Your task to perform on an android device: turn on priority inbox in the gmail app Image 0: 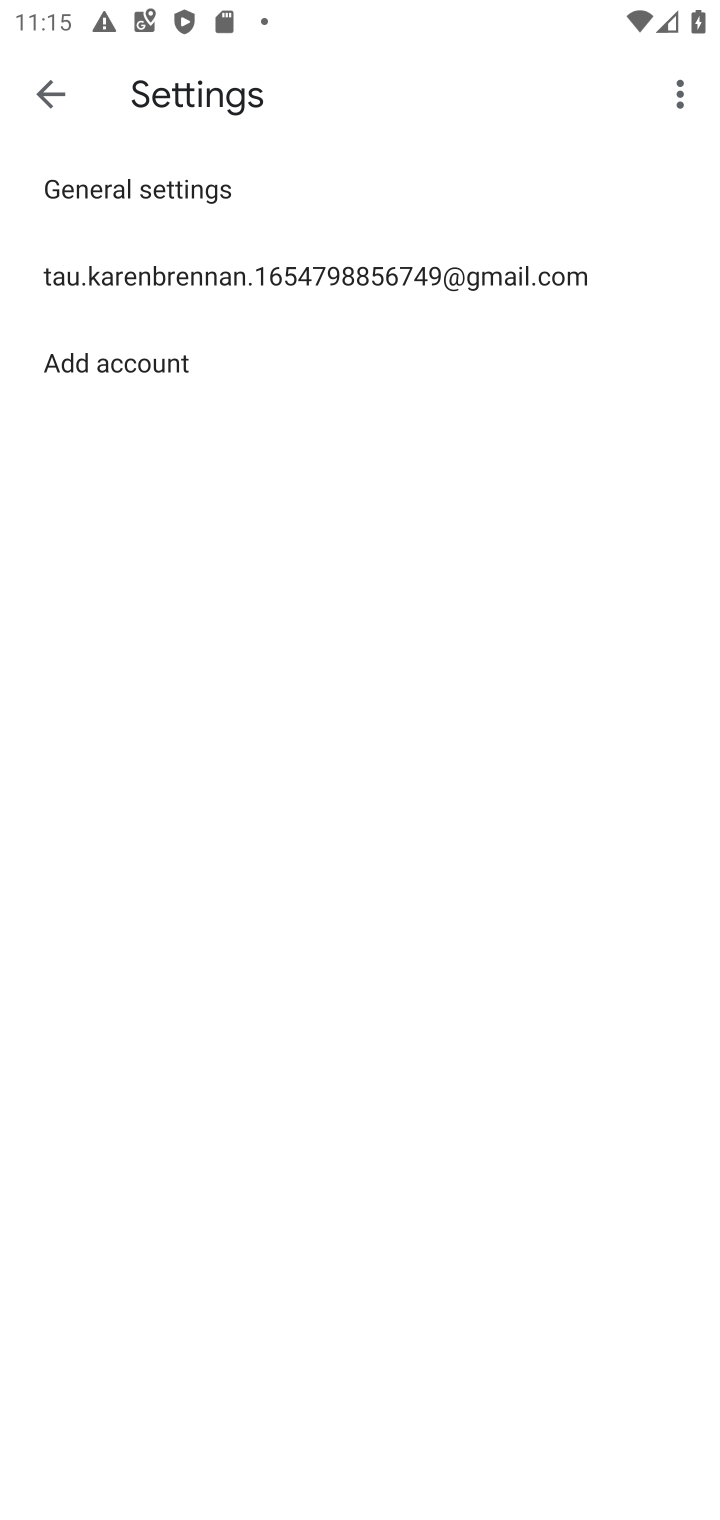
Step 0: press home button
Your task to perform on an android device: turn on priority inbox in the gmail app Image 1: 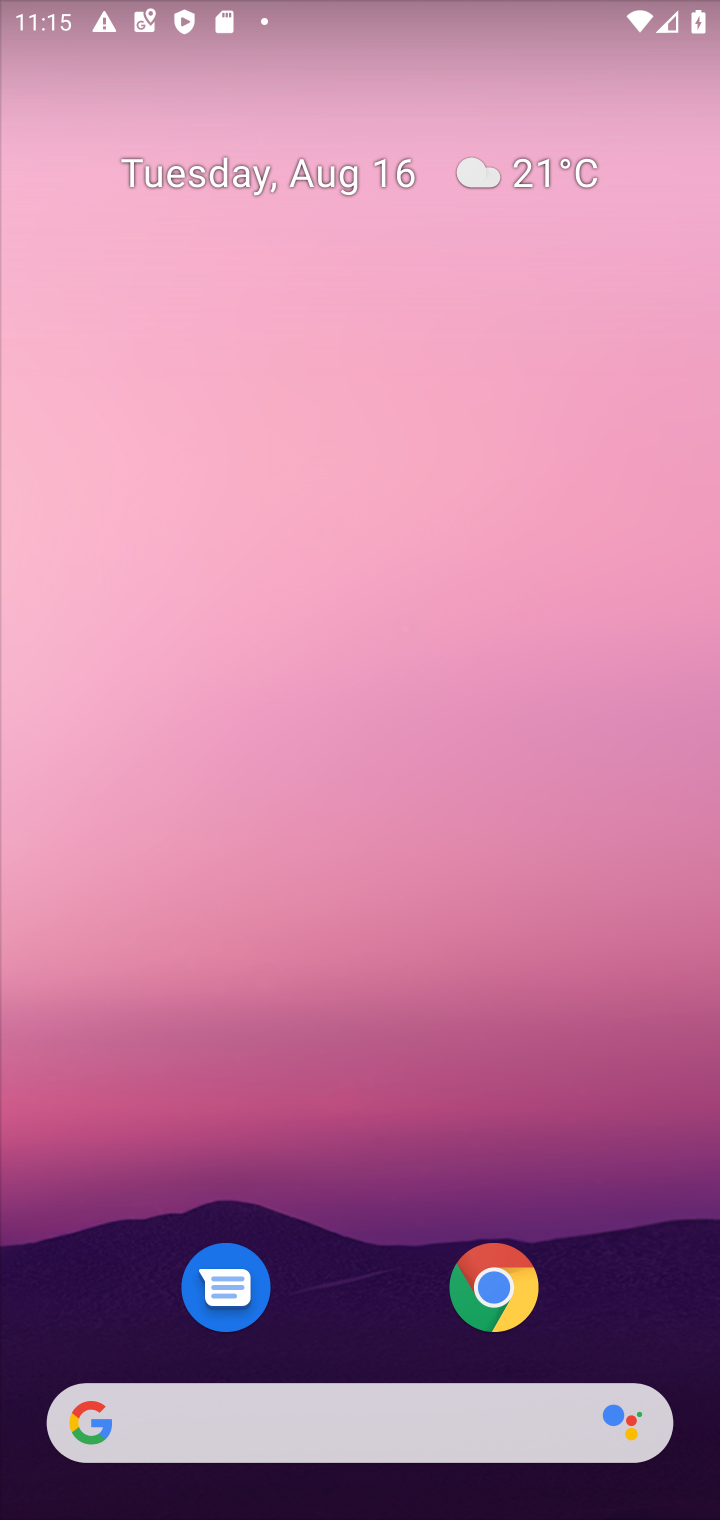
Step 1: drag from (683, 1331) to (587, 240)
Your task to perform on an android device: turn on priority inbox in the gmail app Image 2: 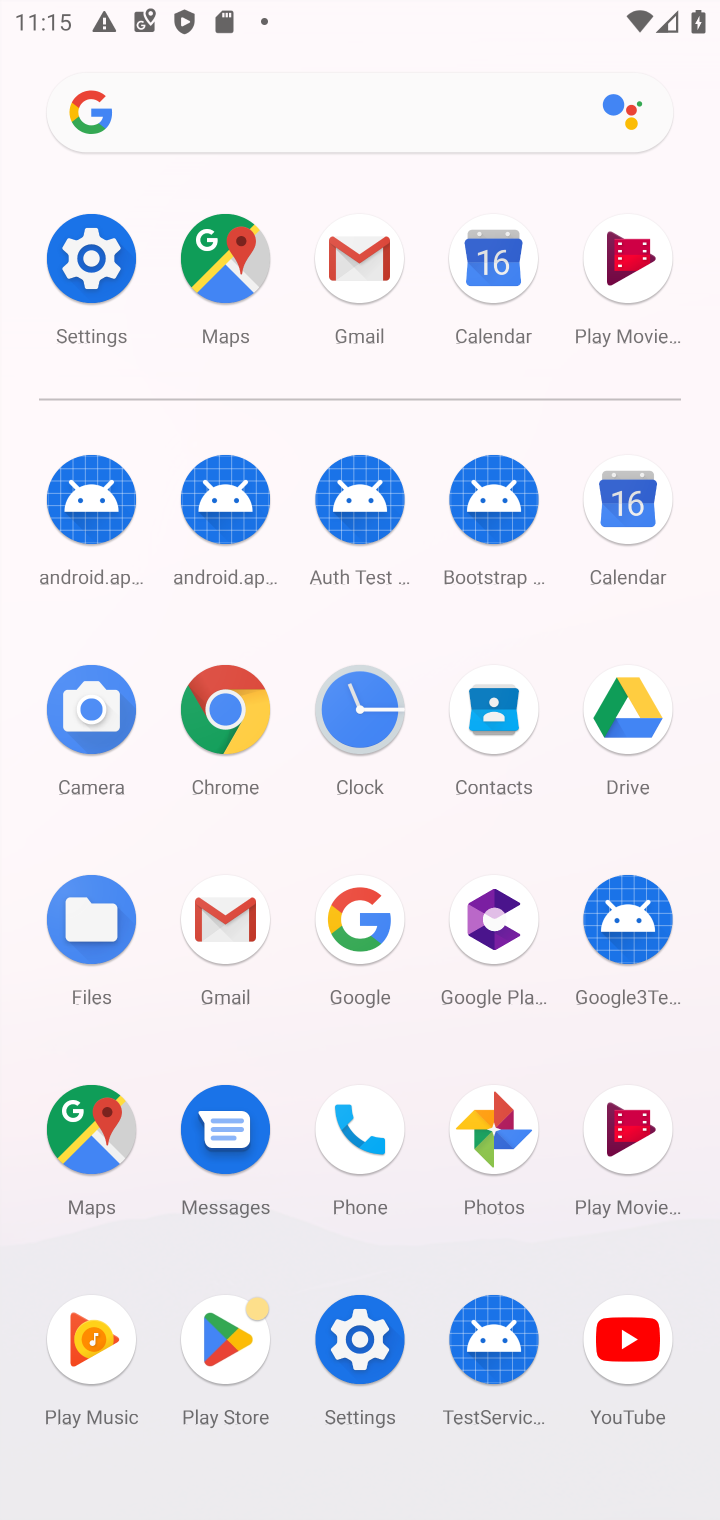
Step 2: click (220, 921)
Your task to perform on an android device: turn on priority inbox in the gmail app Image 3: 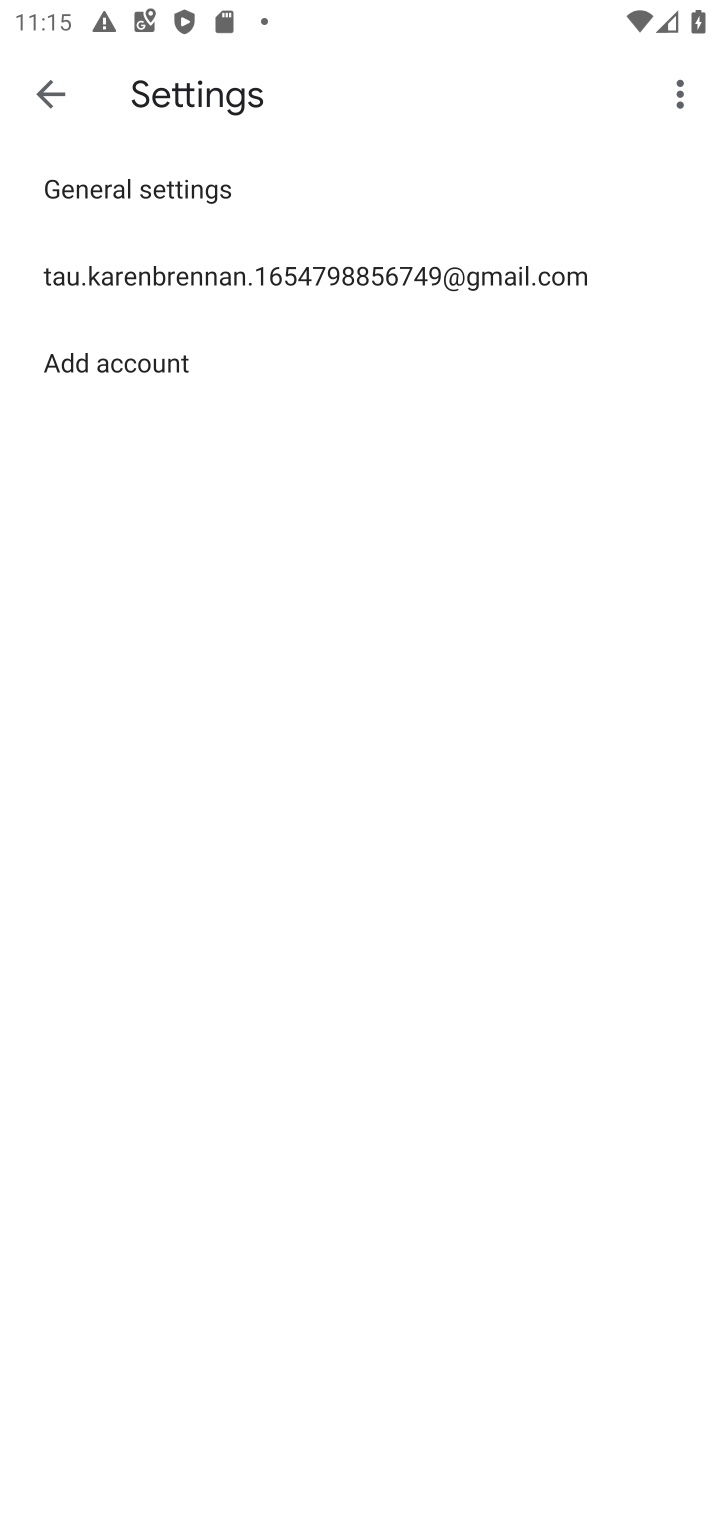
Step 3: click (307, 280)
Your task to perform on an android device: turn on priority inbox in the gmail app Image 4: 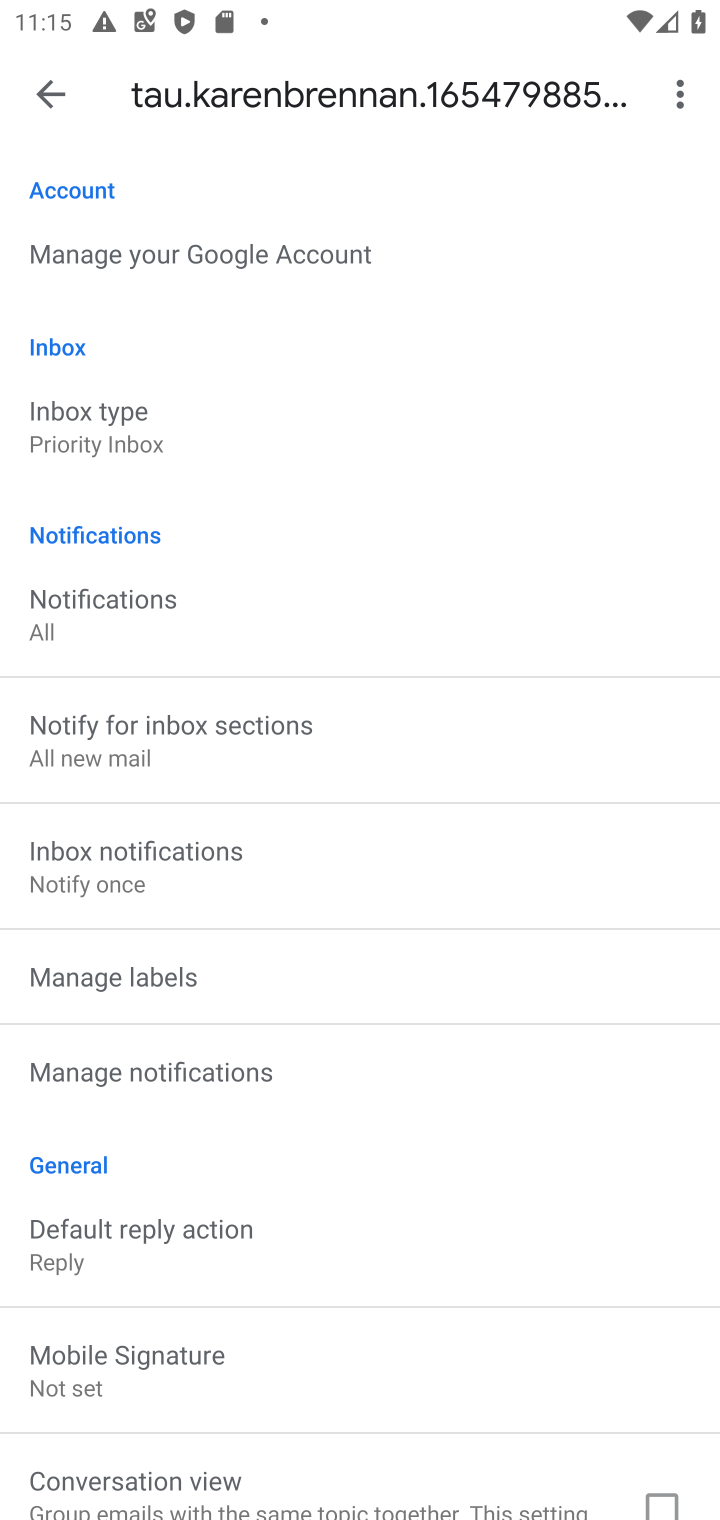
Step 4: click (112, 439)
Your task to perform on an android device: turn on priority inbox in the gmail app Image 5: 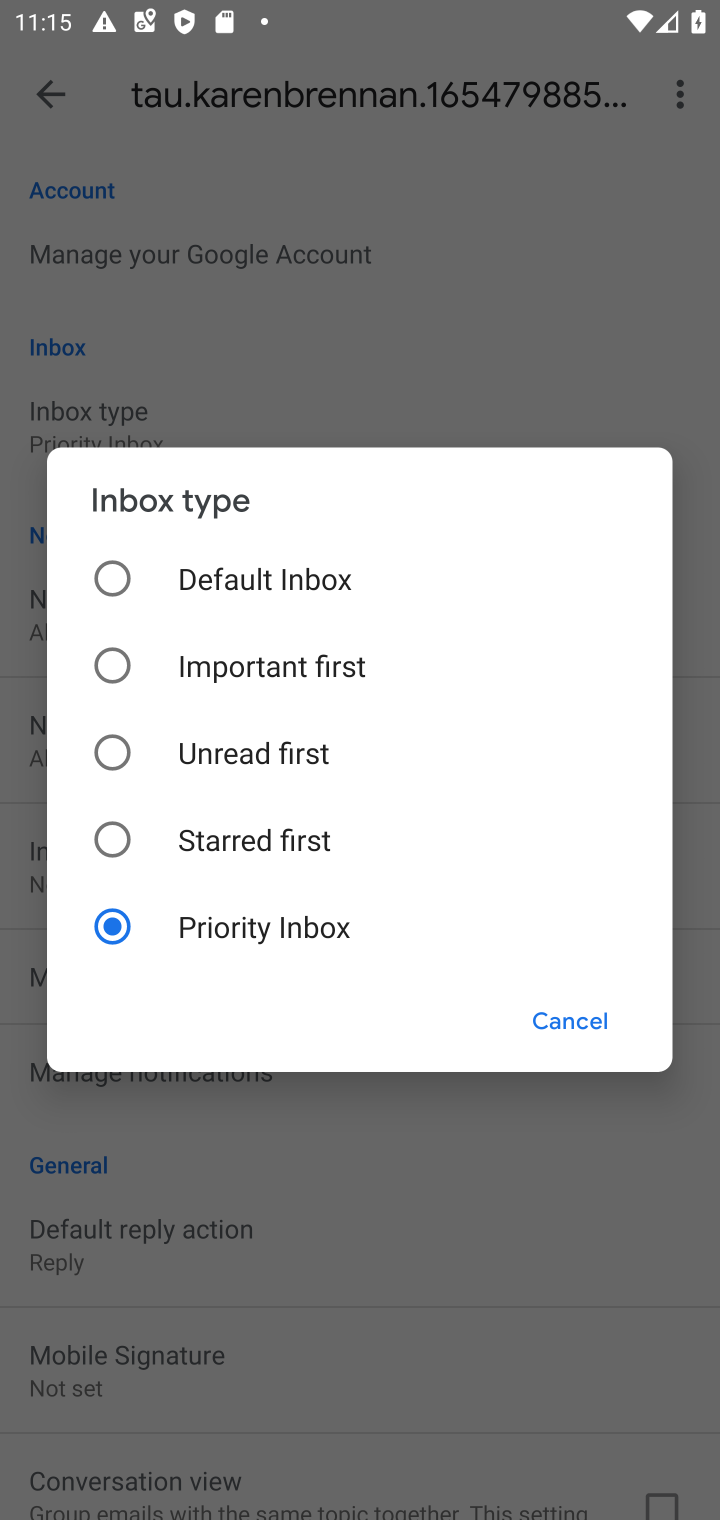
Step 5: task complete